Your task to perform on an android device: empty trash in the gmail app Image 0: 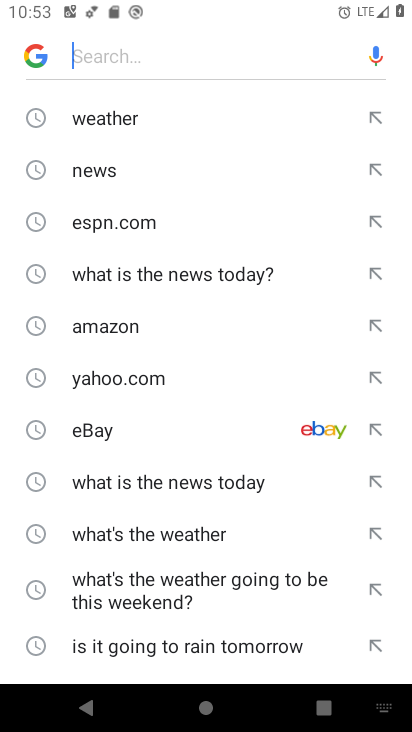
Step 0: press home button
Your task to perform on an android device: empty trash in the gmail app Image 1: 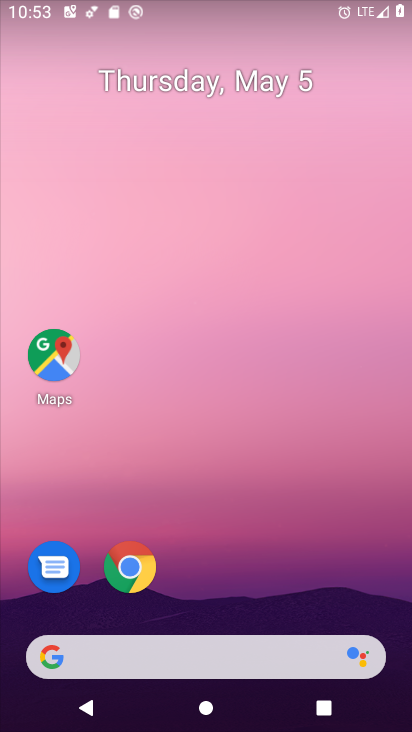
Step 1: drag from (256, 580) to (257, 170)
Your task to perform on an android device: empty trash in the gmail app Image 2: 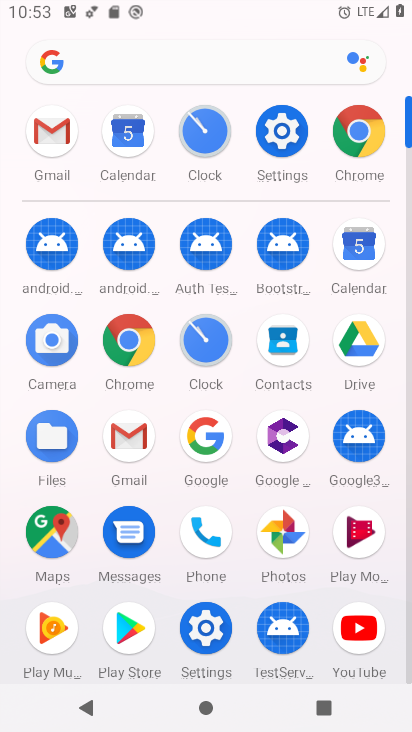
Step 2: click (126, 435)
Your task to perform on an android device: empty trash in the gmail app Image 3: 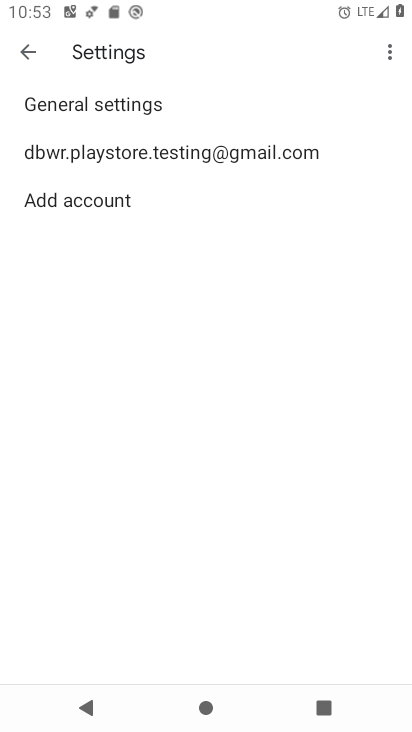
Step 3: click (23, 47)
Your task to perform on an android device: empty trash in the gmail app Image 4: 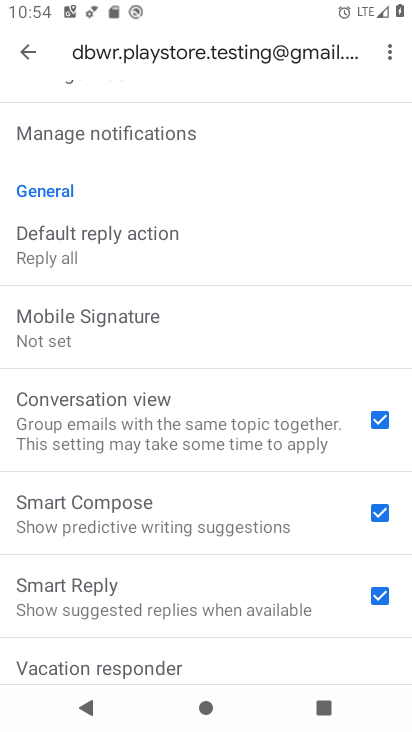
Step 4: click (23, 45)
Your task to perform on an android device: empty trash in the gmail app Image 5: 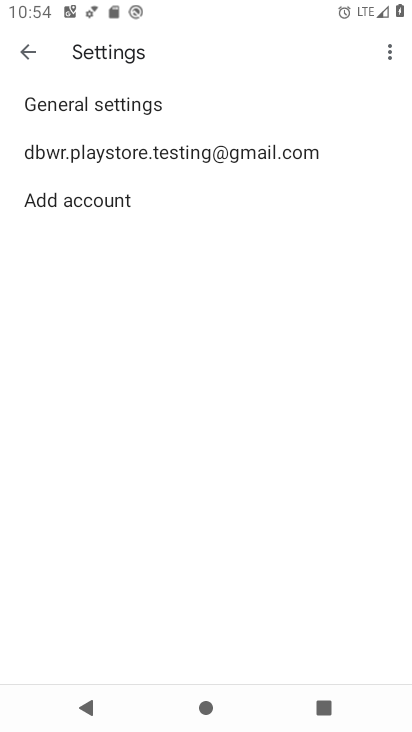
Step 5: click (33, 48)
Your task to perform on an android device: empty trash in the gmail app Image 6: 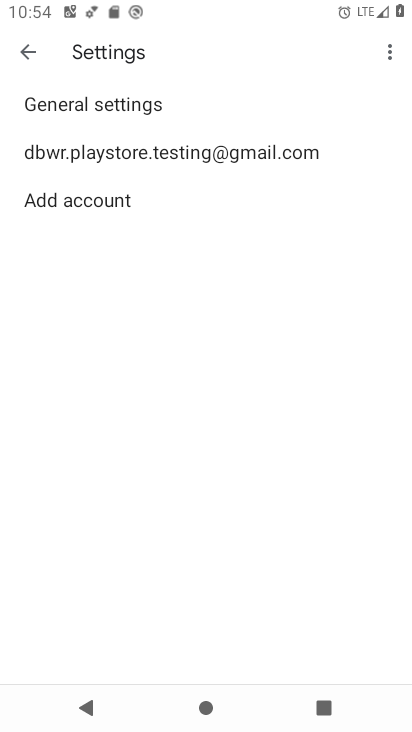
Step 6: click (33, 48)
Your task to perform on an android device: empty trash in the gmail app Image 7: 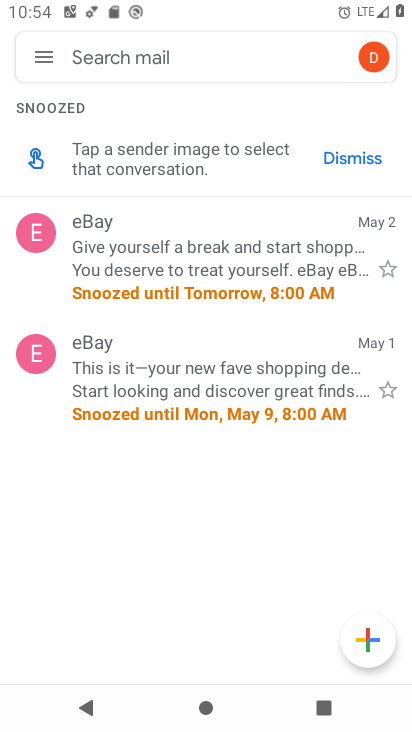
Step 7: click (43, 61)
Your task to perform on an android device: empty trash in the gmail app Image 8: 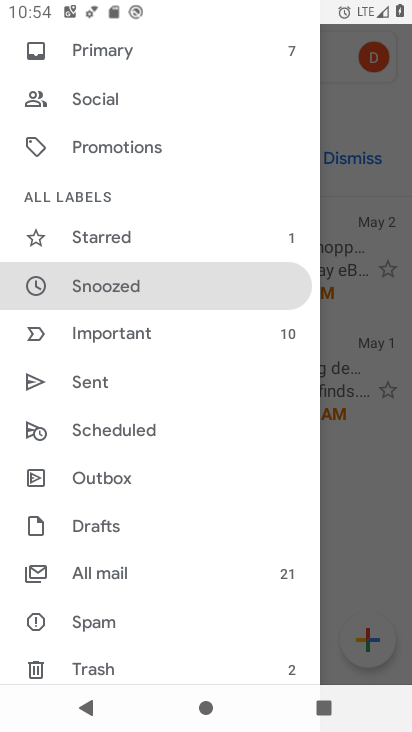
Step 8: click (112, 665)
Your task to perform on an android device: empty trash in the gmail app Image 9: 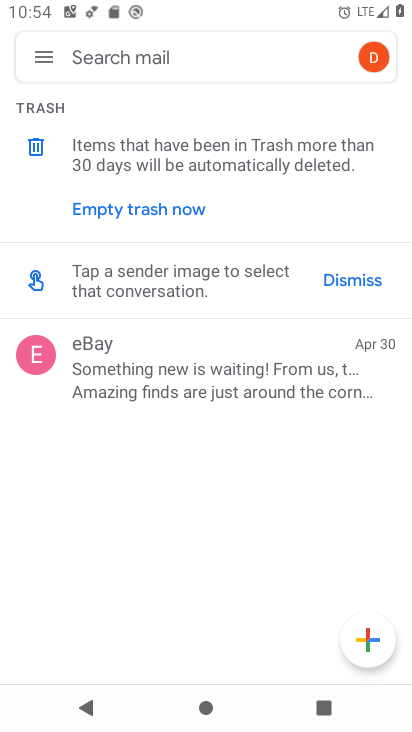
Step 9: click (113, 207)
Your task to perform on an android device: empty trash in the gmail app Image 10: 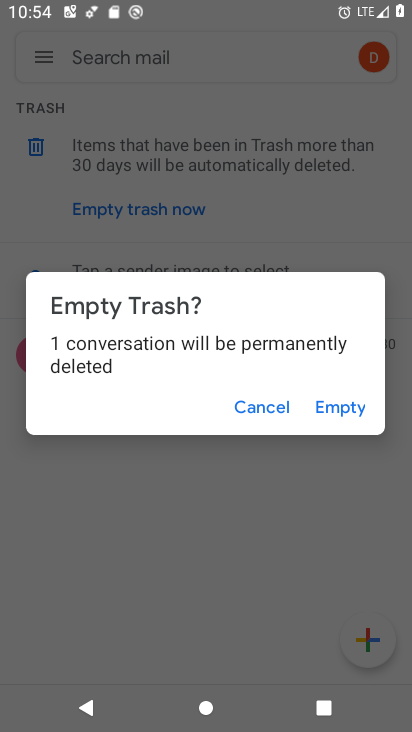
Step 10: click (339, 408)
Your task to perform on an android device: empty trash in the gmail app Image 11: 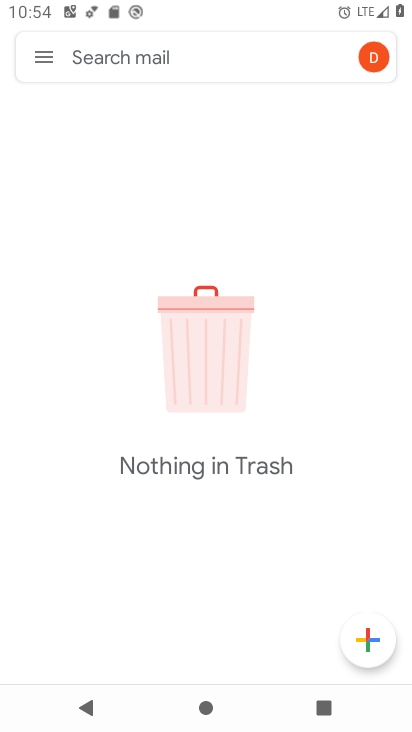
Step 11: task complete